Your task to perform on an android device: turn off picture-in-picture Image 0: 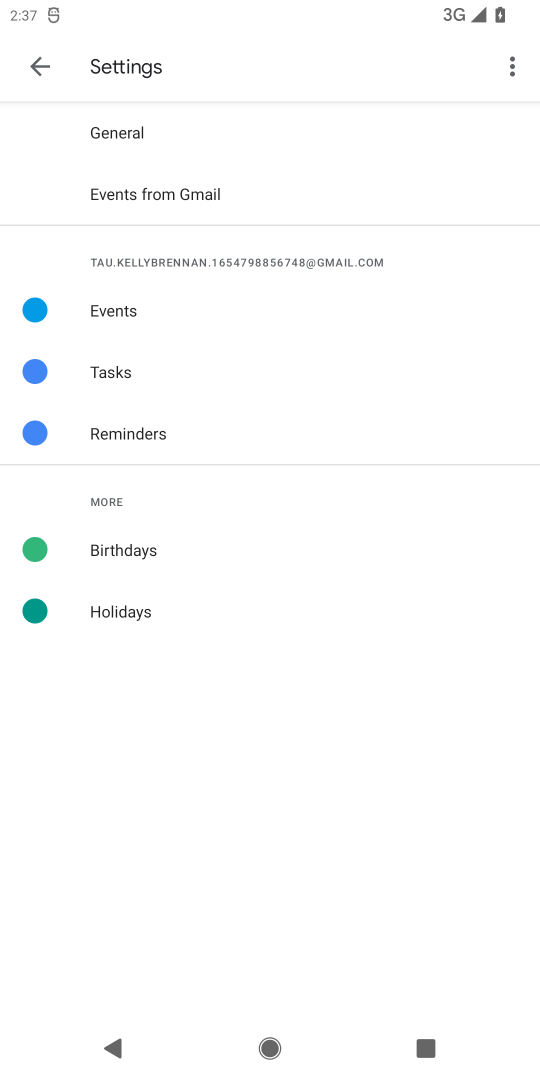
Step 0: press home button
Your task to perform on an android device: turn off picture-in-picture Image 1: 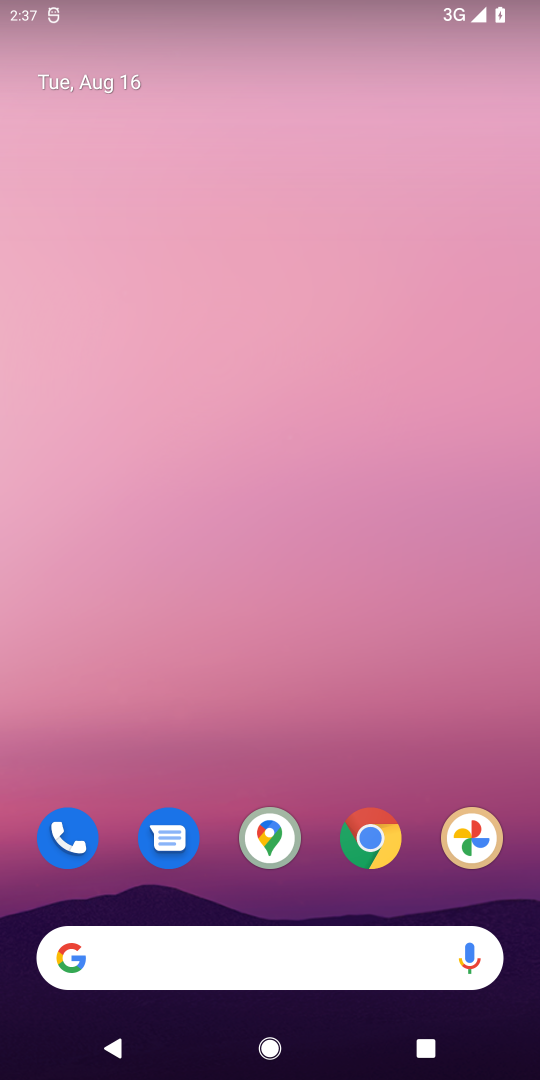
Step 1: click (373, 835)
Your task to perform on an android device: turn off picture-in-picture Image 2: 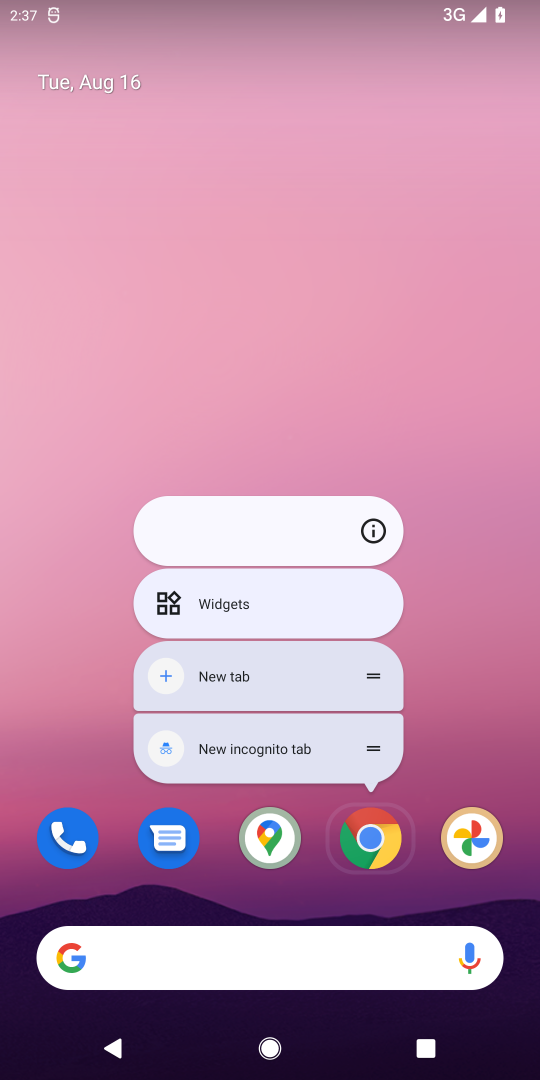
Step 2: click (366, 532)
Your task to perform on an android device: turn off picture-in-picture Image 3: 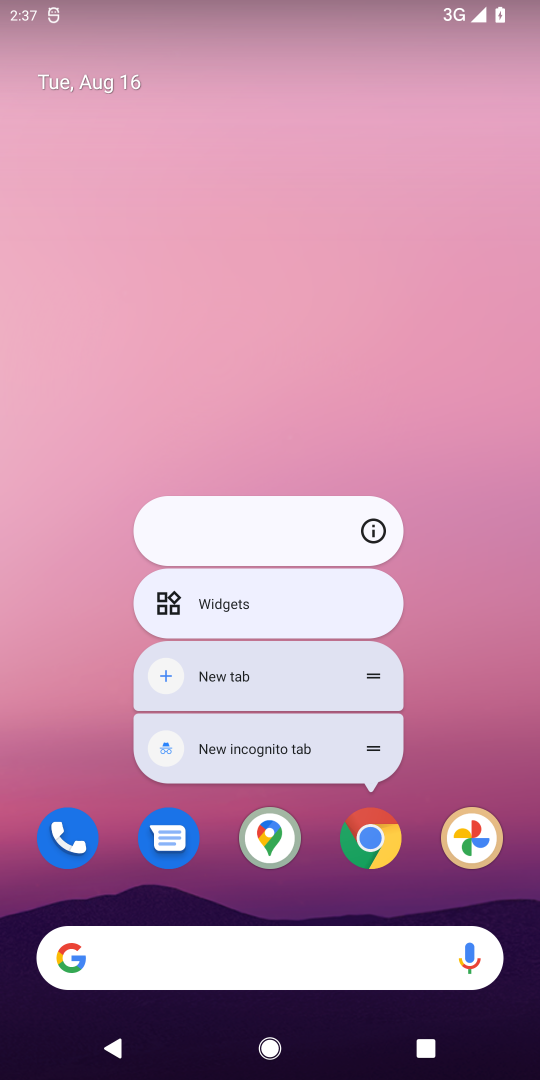
Step 3: click (377, 526)
Your task to perform on an android device: turn off picture-in-picture Image 4: 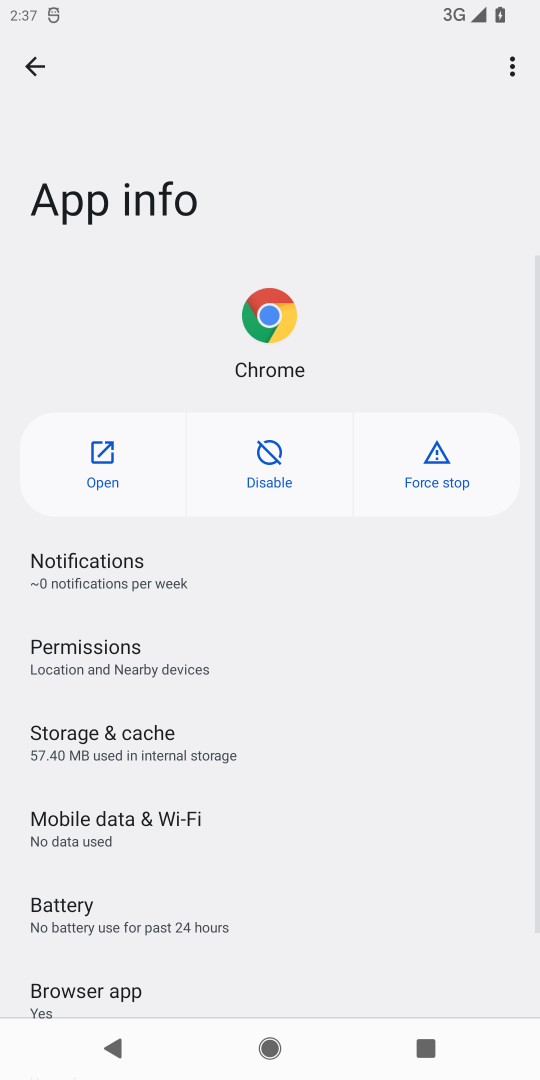
Step 4: drag from (395, 967) to (325, 247)
Your task to perform on an android device: turn off picture-in-picture Image 5: 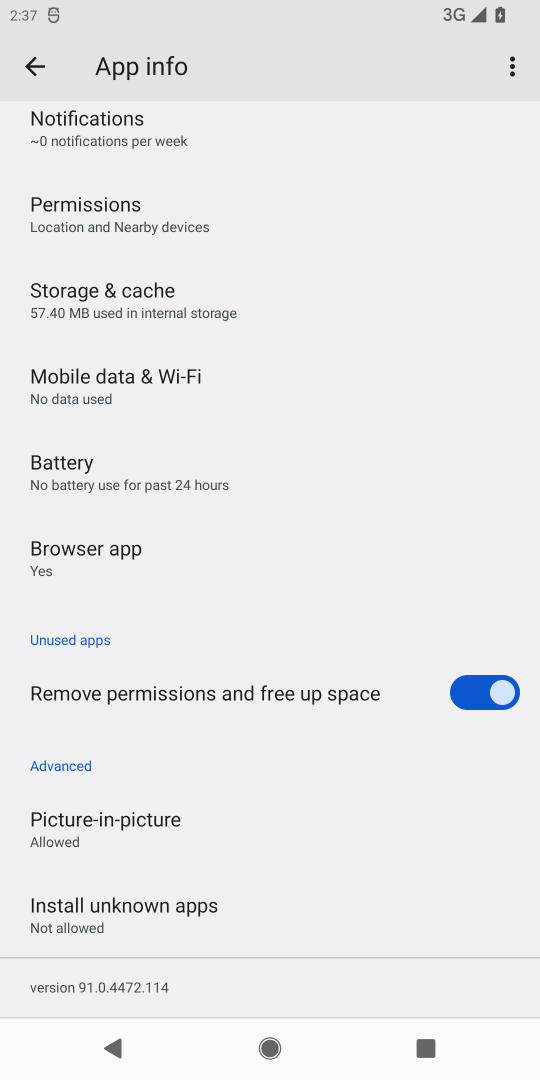
Step 5: click (170, 845)
Your task to perform on an android device: turn off picture-in-picture Image 6: 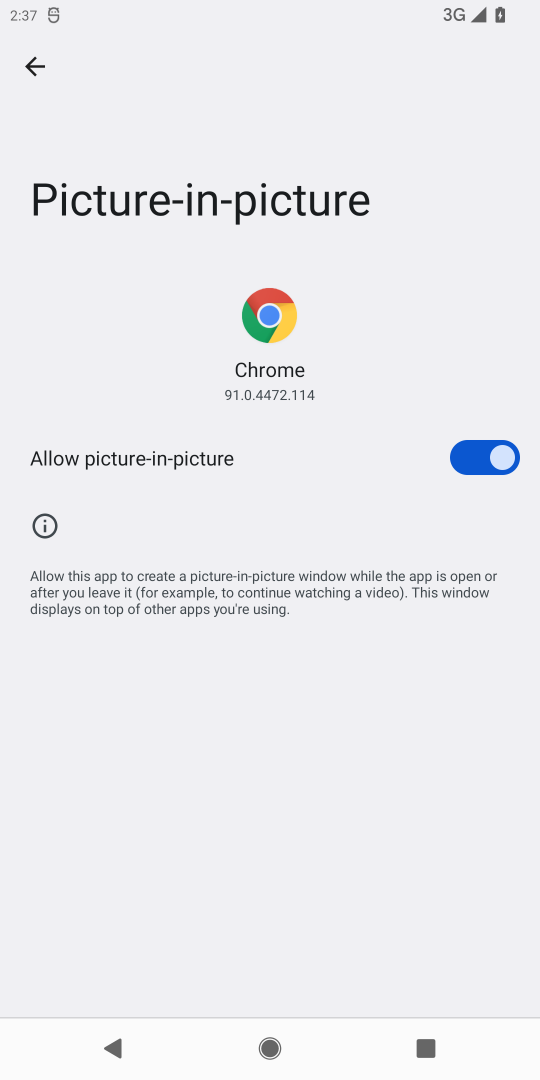
Step 6: click (466, 471)
Your task to perform on an android device: turn off picture-in-picture Image 7: 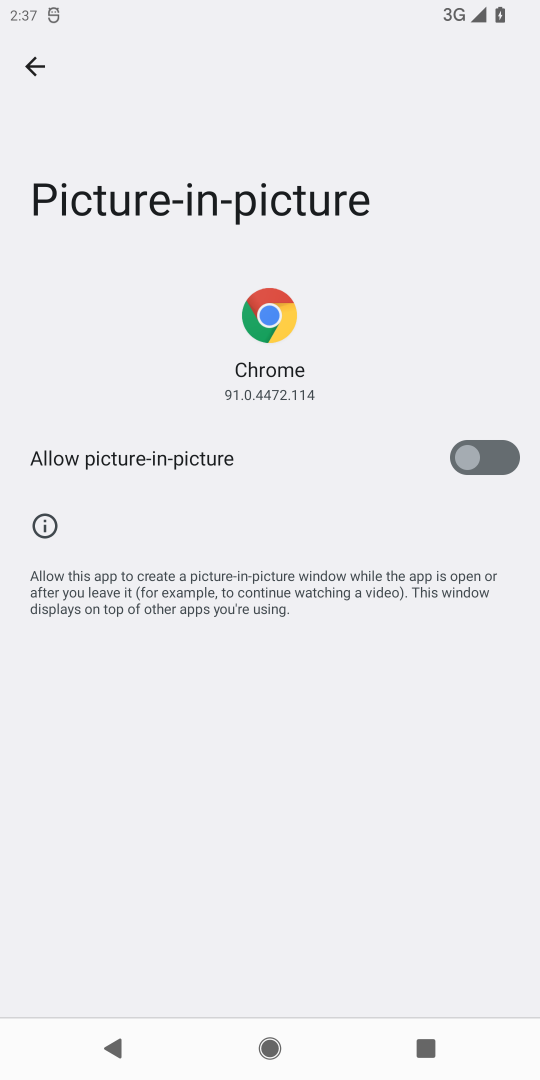
Step 7: task complete